Your task to perform on an android device: manage bookmarks in the chrome app Image 0: 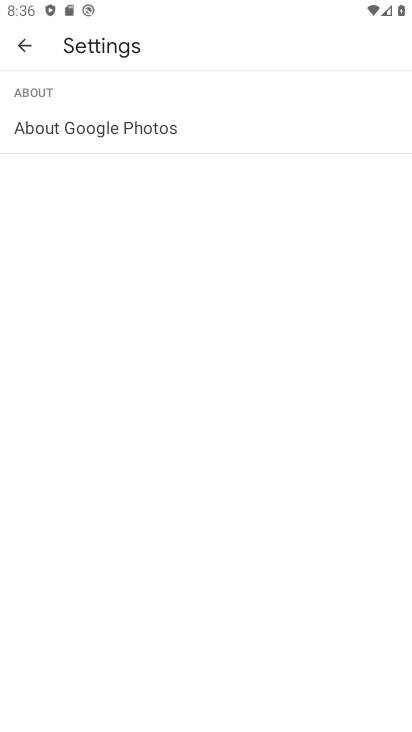
Step 0: press home button
Your task to perform on an android device: manage bookmarks in the chrome app Image 1: 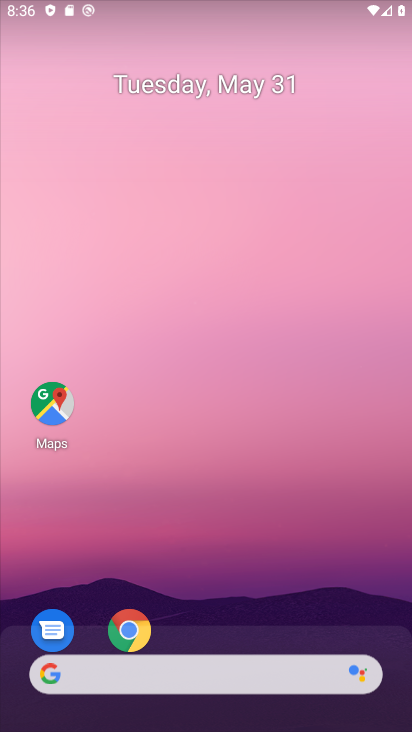
Step 1: click (137, 631)
Your task to perform on an android device: manage bookmarks in the chrome app Image 2: 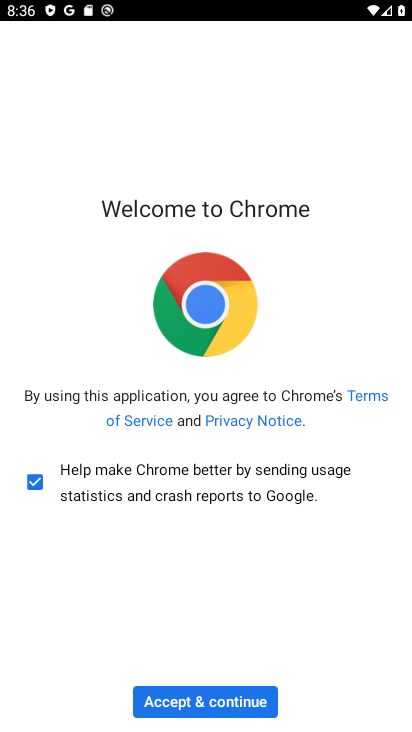
Step 2: click (183, 709)
Your task to perform on an android device: manage bookmarks in the chrome app Image 3: 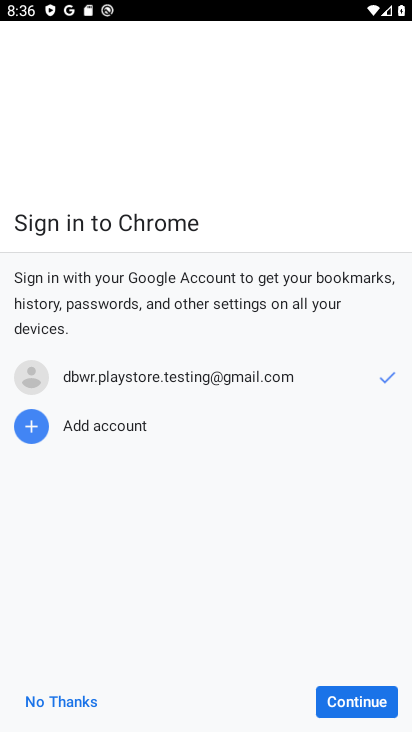
Step 3: click (345, 715)
Your task to perform on an android device: manage bookmarks in the chrome app Image 4: 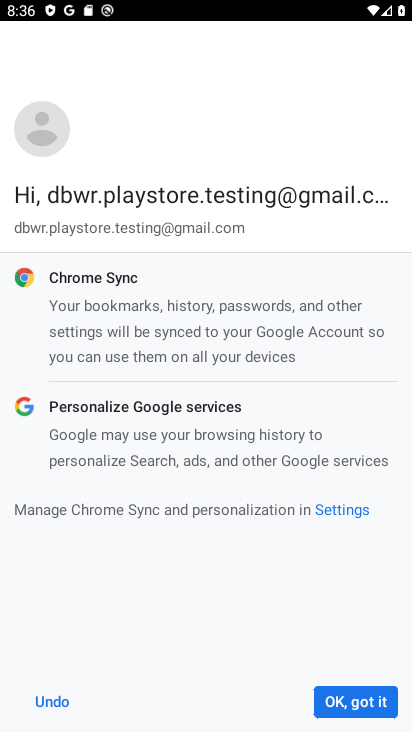
Step 4: click (346, 716)
Your task to perform on an android device: manage bookmarks in the chrome app Image 5: 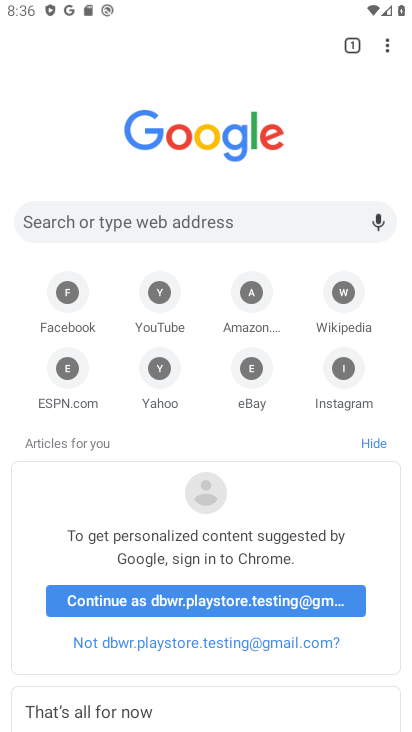
Step 5: click (391, 44)
Your task to perform on an android device: manage bookmarks in the chrome app Image 6: 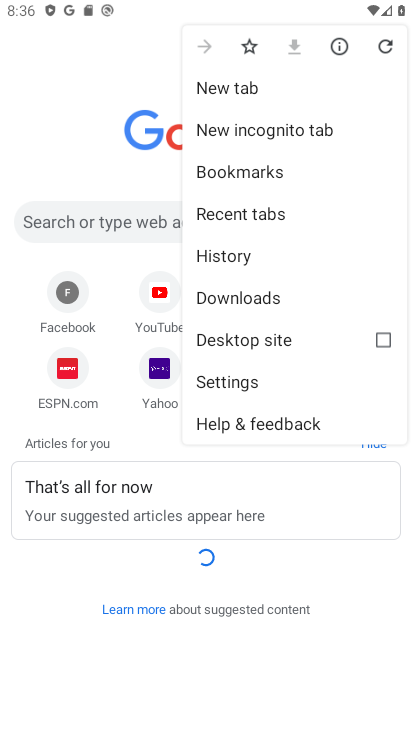
Step 6: click (267, 175)
Your task to perform on an android device: manage bookmarks in the chrome app Image 7: 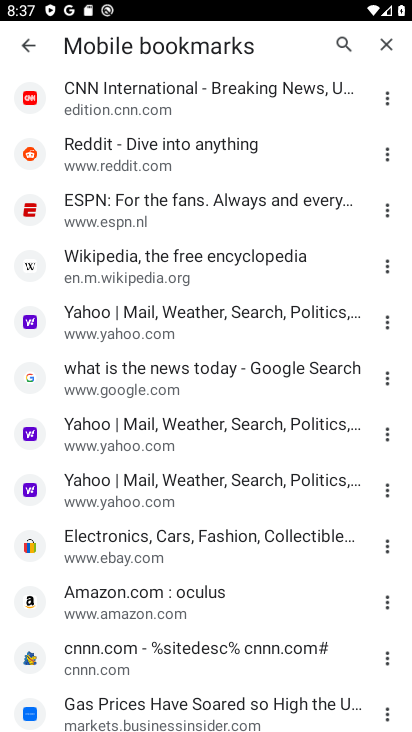
Step 7: click (388, 429)
Your task to perform on an android device: manage bookmarks in the chrome app Image 8: 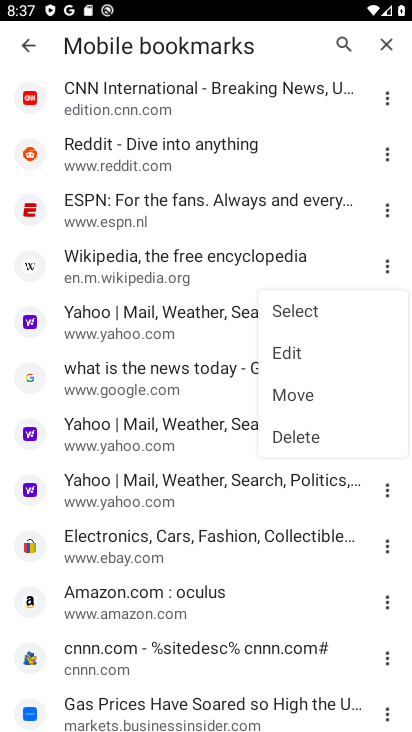
Step 8: click (297, 435)
Your task to perform on an android device: manage bookmarks in the chrome app Image 9: 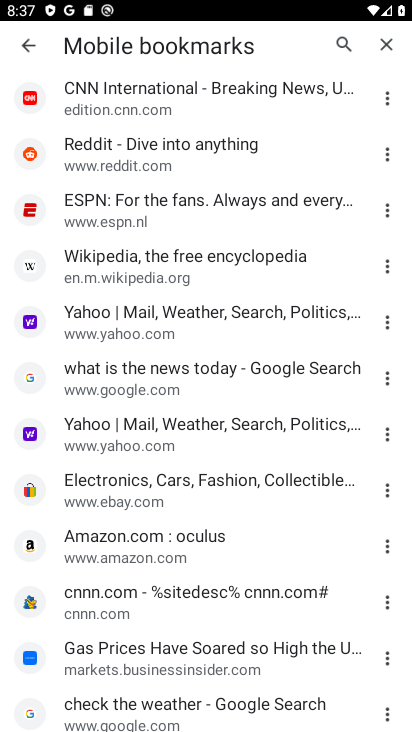
Step 9: task complete